Your task to perform on an android device: empty trash in google photos Image 0: 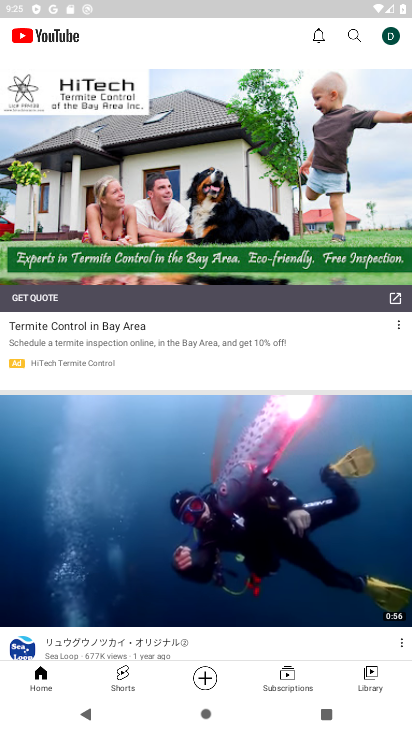
Step 0: press back button
Your task to perform on an android device: empty trash in google photos Image 1: 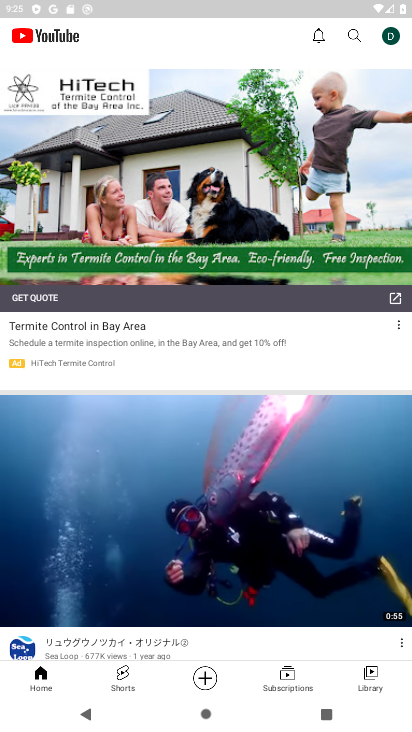
Step 1: press back button
Your task to perform on an android device: empty trash in google photos Image 2: 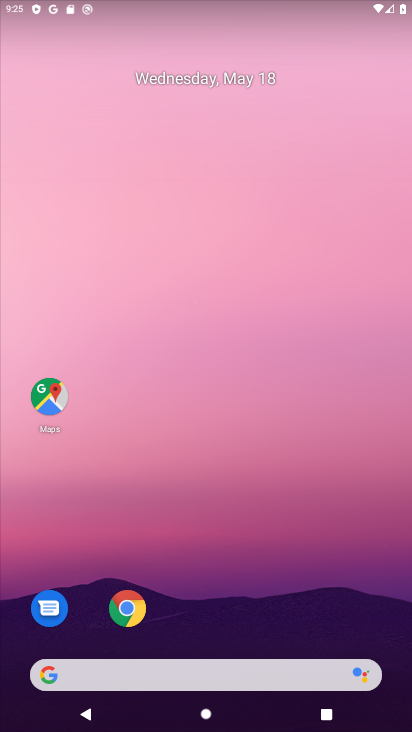
Step 2: drag from (287, 550) to (260, 77)
Your task to perform on an android device: empty trash in google photos Image 3: 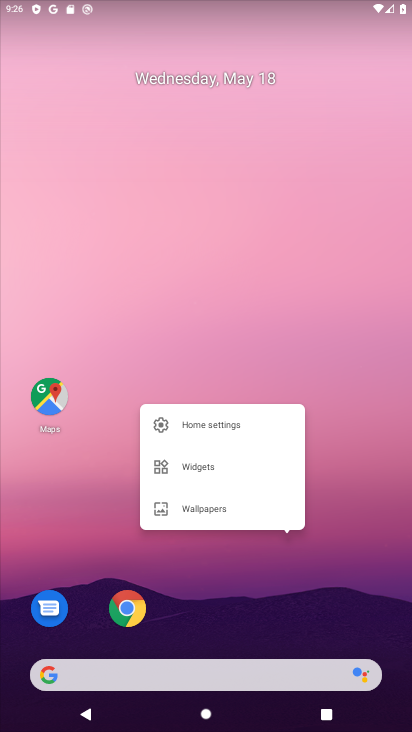
Step 3: click (292, 593)
Your task to perform on an android device: empty trash in google photos Image 4: 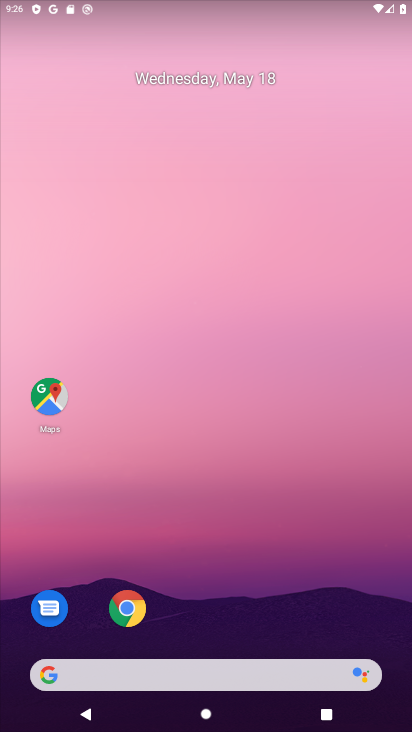
Step 4: click (292, 593)
Your task to perform on an android device: empty trash in google photos Image 5: 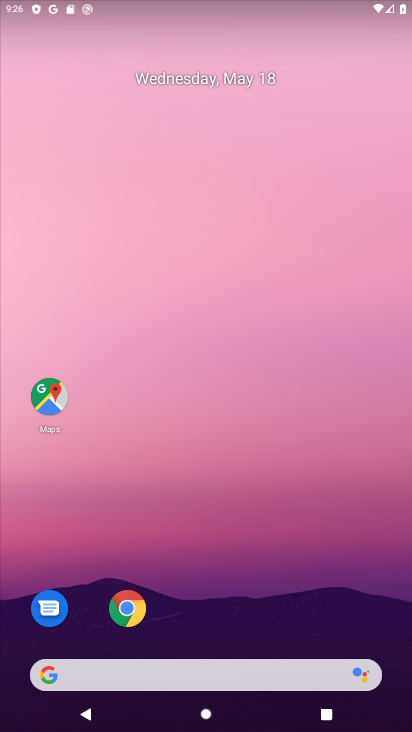
Step 5: drag from (292, 593) to (234, 67)
Your task to perform on an android device: empty trash in google photos Image 6: 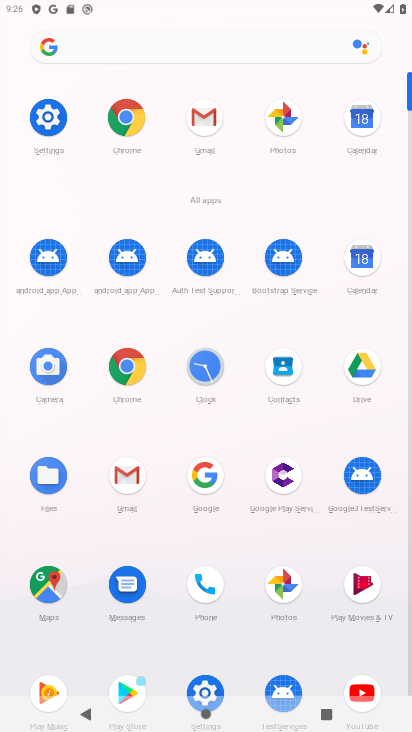
Step 6: click (278, 138)
Your task to perform on an android device: empty trash in google photos Image 7: 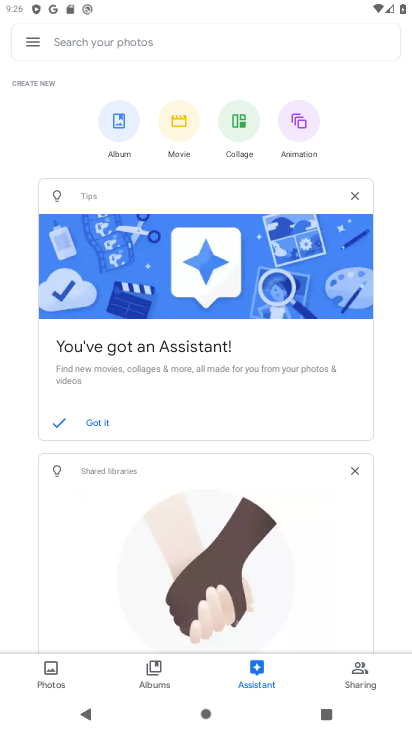
Step 7: click (9, 45)
Your task to perform on an android device: empty trash in google photos Image 8: 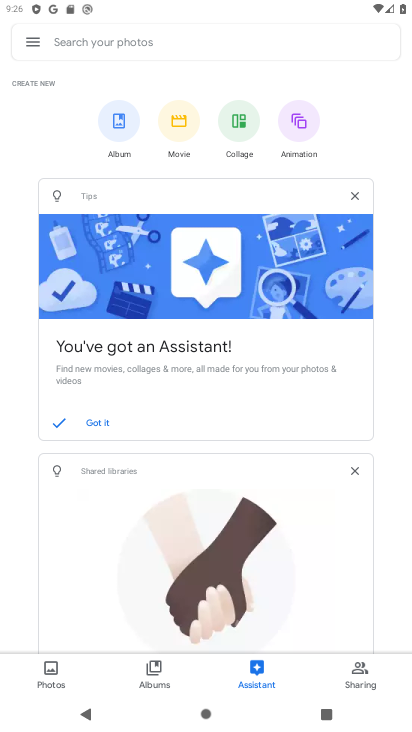
Step 8: click (9, 45)
Your task to perform on an android device: empty trash in google photos Image 9: 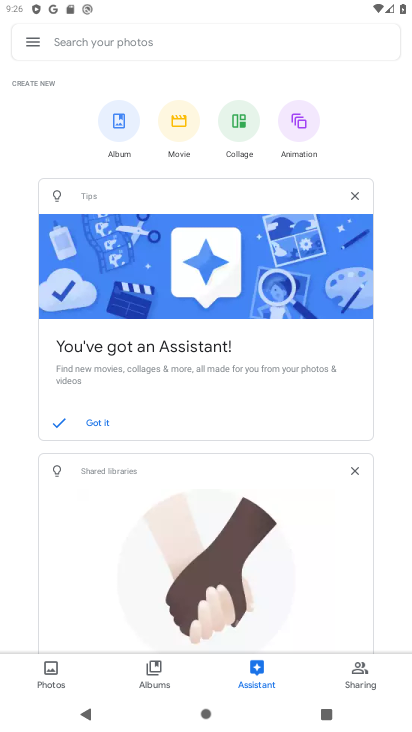
Step 9: click (29, 37)
Your task to perform on an android device: empty trash in google photos Image 10: 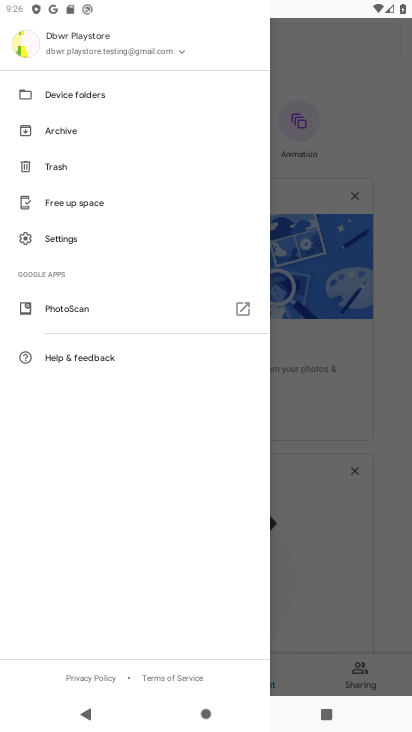
Step 10: click (69, 163)
Your task to perform on an android device: empty trash in google photos Image 11: 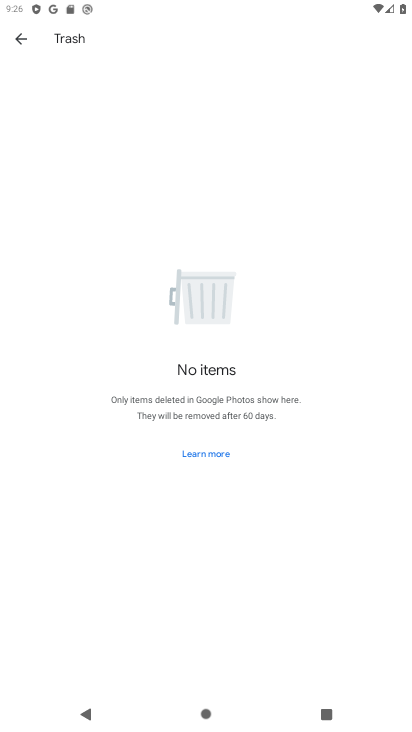
Step 11: task complete